Your task to perform on an android device: Do I have any events tomorrow? Image 0: 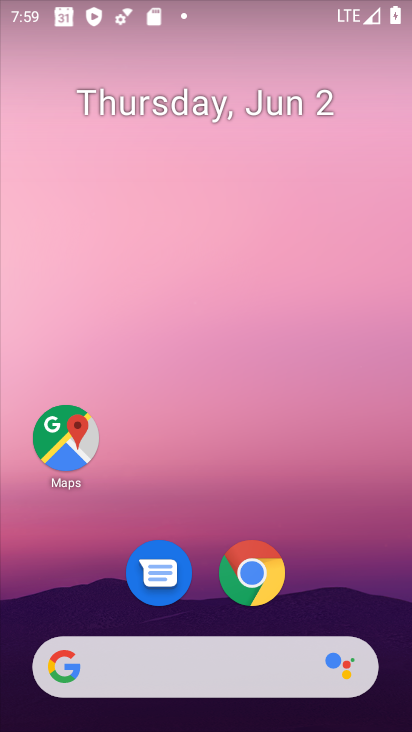
Step 0: drag from (337, 598) to (321, 195)
Your task to perform on an android device: Do I have any events tomorrow? Image 1: 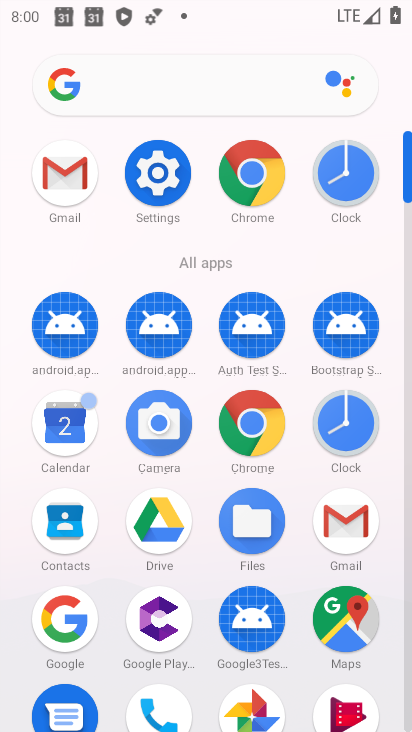
Step 1: click (62, 415)
Your task to perform on an android device: Do I have any events tomorrow? Image 2: 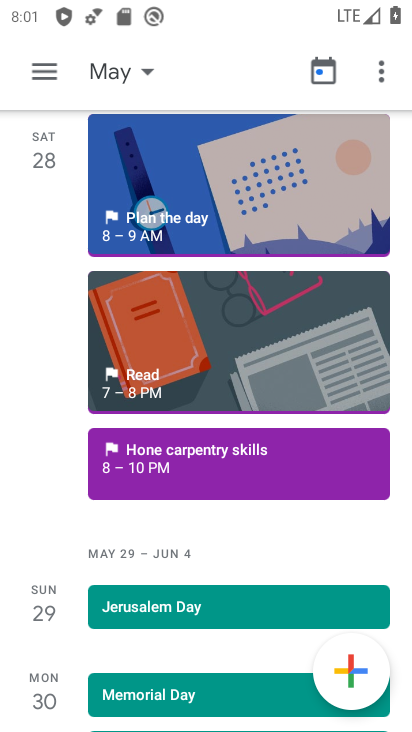
Step 2: click (116, 74)
Your task to perform on an android device: Do I have any events tomorrow? Image 3: 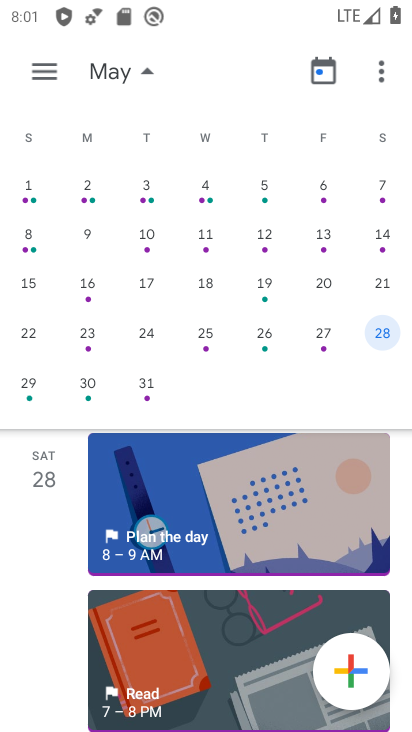
Step 3: click (29, 389)
Your task to perform on an android device: Do I have any events tomorrow? Image 4: 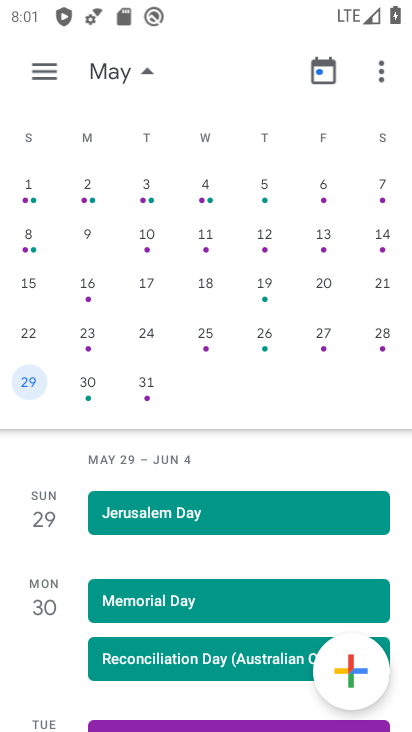
Step 4: task complete